Your task to perform on an android device: turn off notifications settings in the gmail app Image 0: 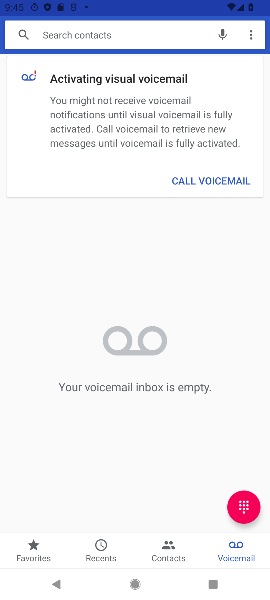
Step 0: press home button
Your task to perform on an android device: turn off notifications settings in the gmail app Image 1: 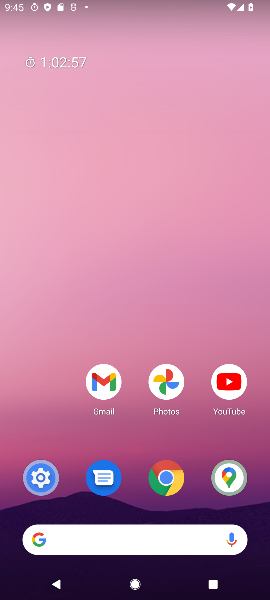
Step 1: drag from (141, 545) to (215, 44)
Your task to perform on an android device: turn off notifications settings in the gmail app Image 2: 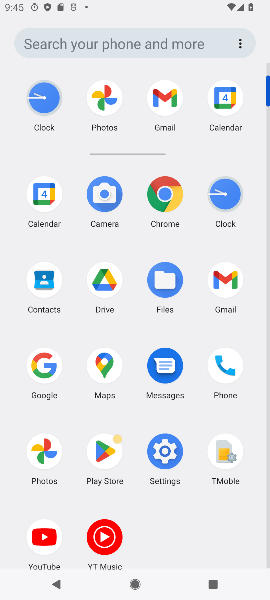
Step 2: click (223, 278)
Your task to perform on an android device: turn off notifications settings in the gmail app Image 3: 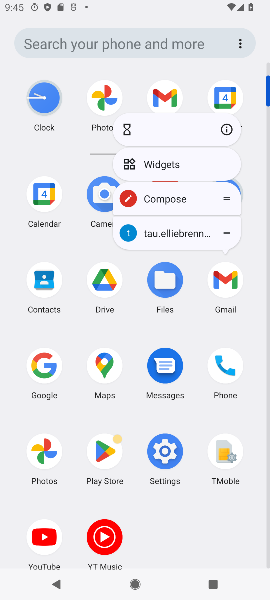
Step 3: click (224, 124)
Your task to perform on an android device: turn off notifications settings in the gmail app Image 4: 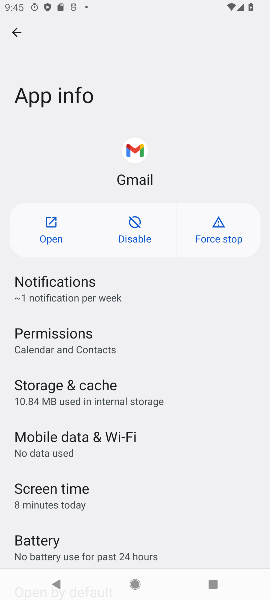
Step 4: click (63, 294)
Your task to perform on an android device: turn off notifications settings in the gmail app Image 5: 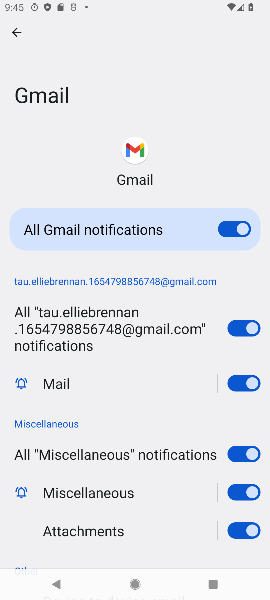
Step 5: click (179, 223)
Your task to perform on an android device: turn off notifications settings in the gmail app Image 6: 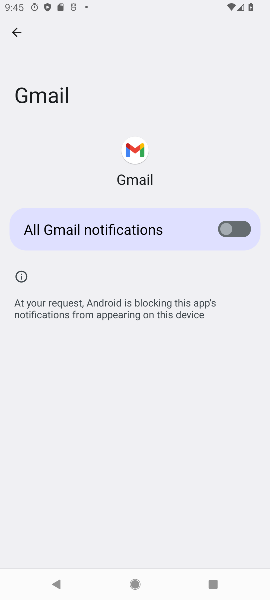
Step 6: task complete